Your task to perform on an android device: turn off wifi Image 0: 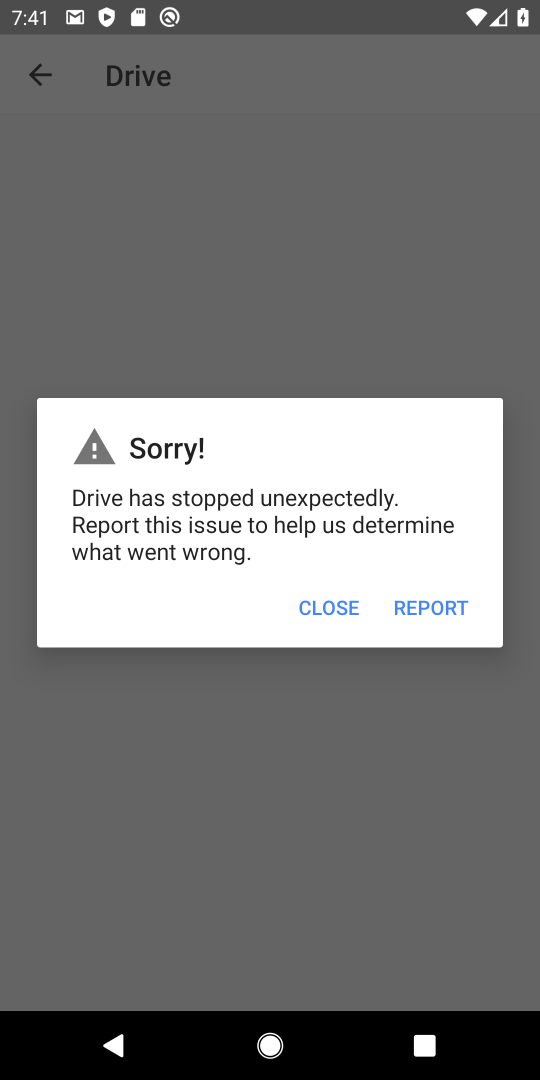
Step 0: press home button
Your task to perform on an android device: turn off wifi Image 1: 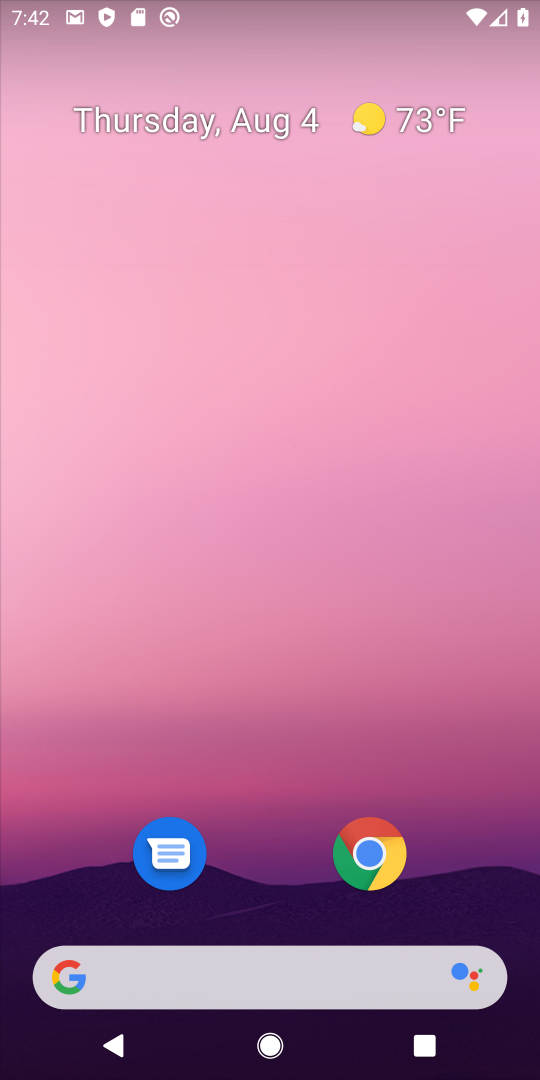
Step 1: drag from (231, 923) to (264, 288)
Your task to perform on an android device: turn off wifi Image 2: 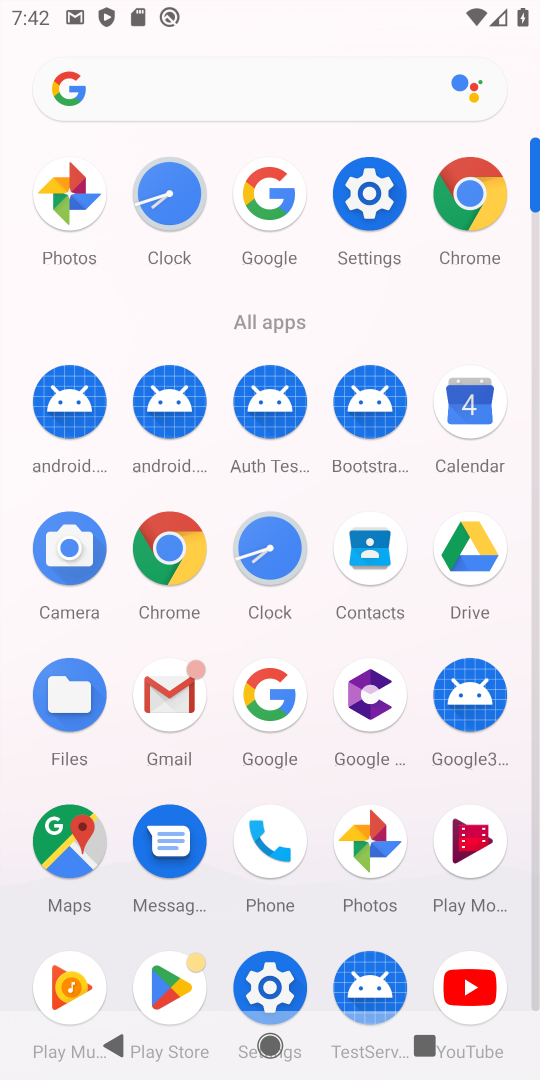
Step 2: click (376, 195)
Your task to perform on an android device: turn off wifi Image 3: 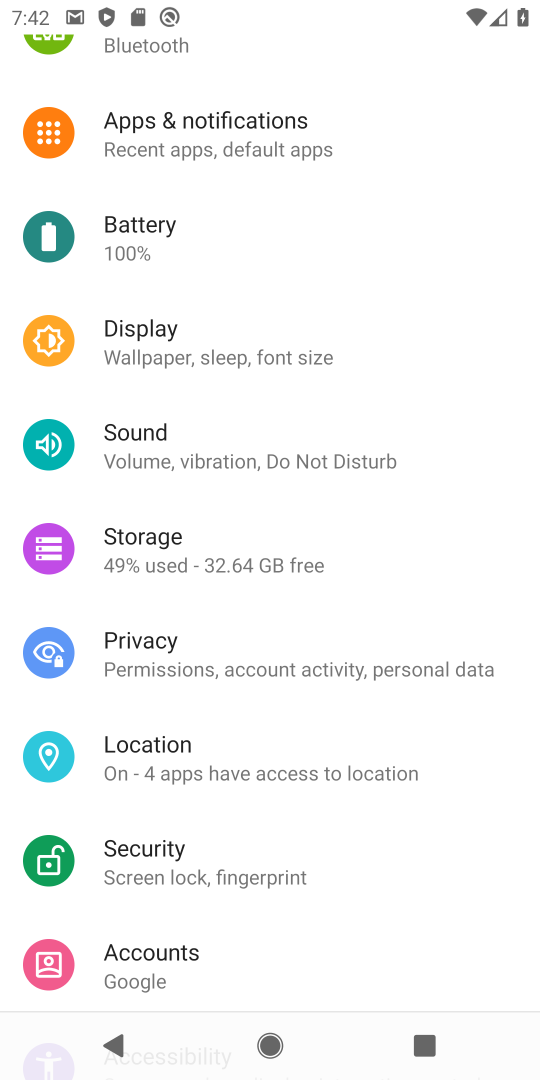
Step 3: drag from (399, 196) to (478, 806)
Your task to perform on an android device: turn off wifi Image 4: 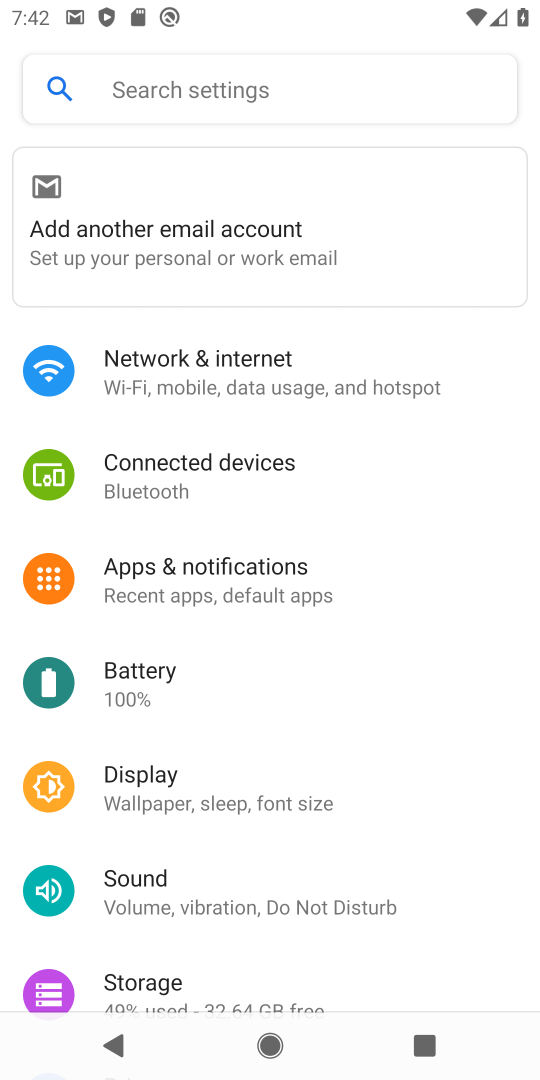
Step 4: click (254, 375)
Your task to perform on an android device: turn off wifi Image 5: 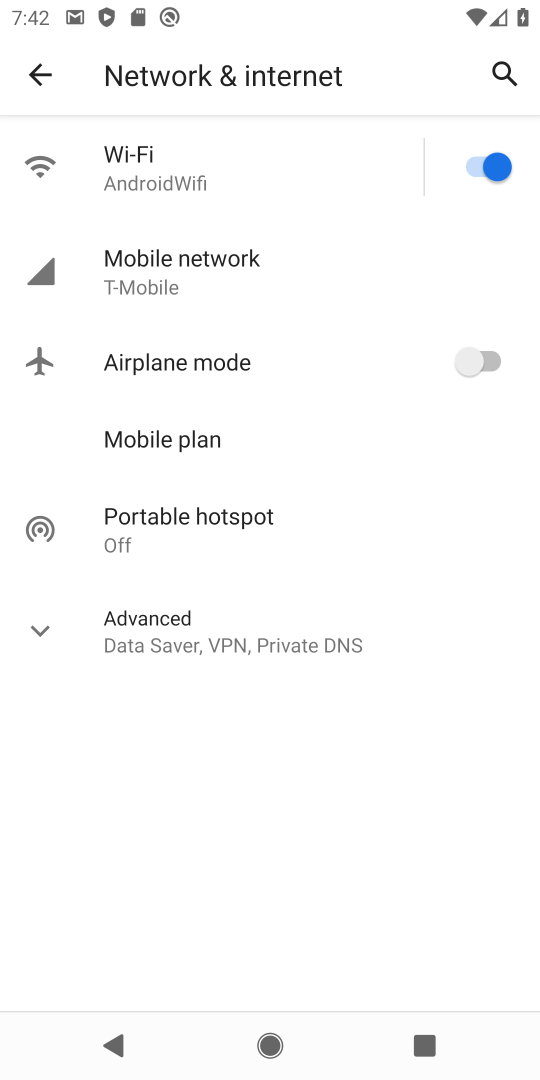
Step 5: click (479, 166)
Your task to perform on an android device: turn off wifi Image 6: 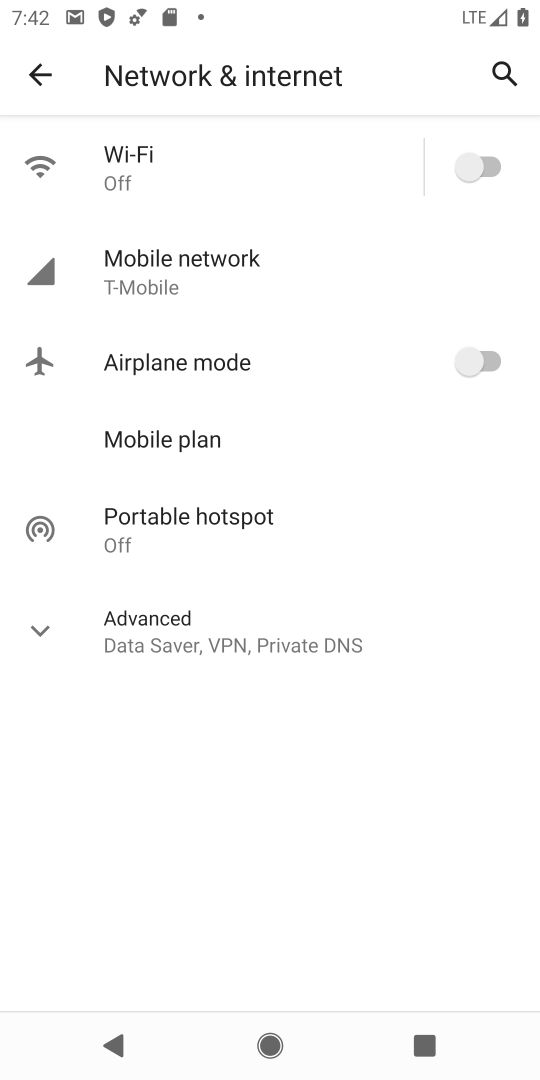
Step 6: task complete